Your task to perform on an android device: change keyboard looks Image 0: 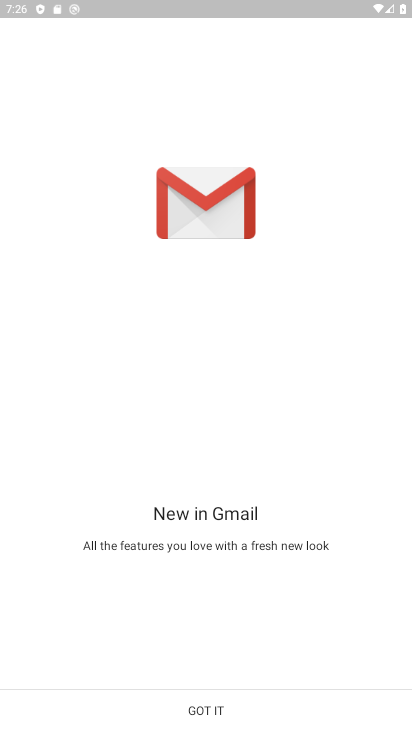
Step 0: press home button
Your task to perform on an android device: change keyboard looks Image 1: 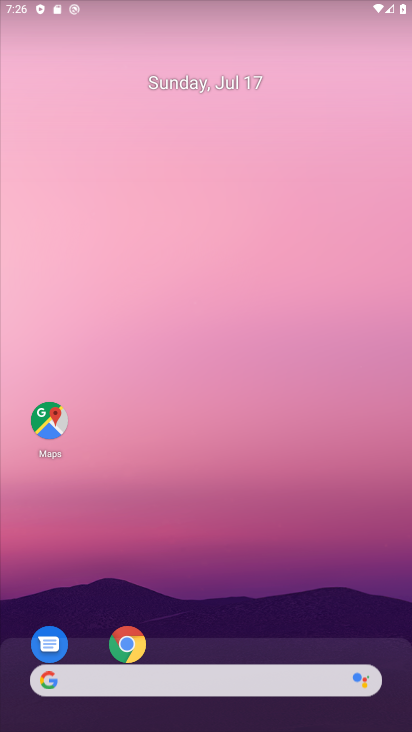
Step 1: drag from (280, 571) to (302, 41)
Your task to perform on an android device: change keyboard looks Image 2: 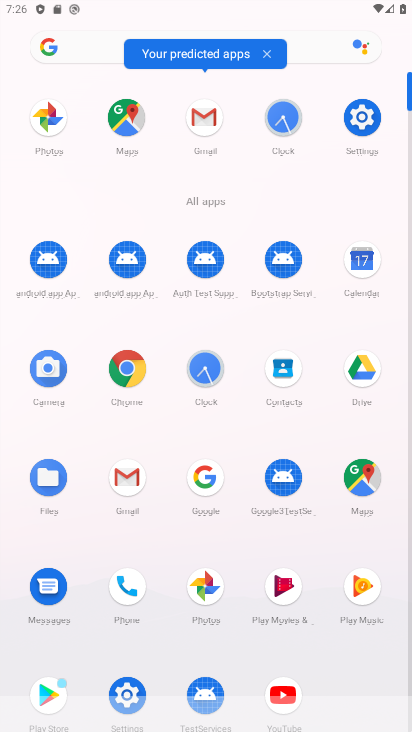
Step 2: click (363, 125)
Your task to perform on an android device: change keyboard looks Image 3: 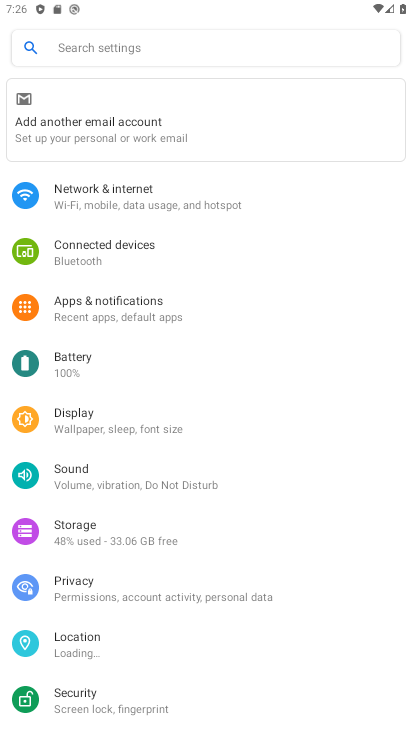
Step 3: drag from (224, 537) to (275, 148)
Your task to perform on an android device: change keyboard looks Image 4: 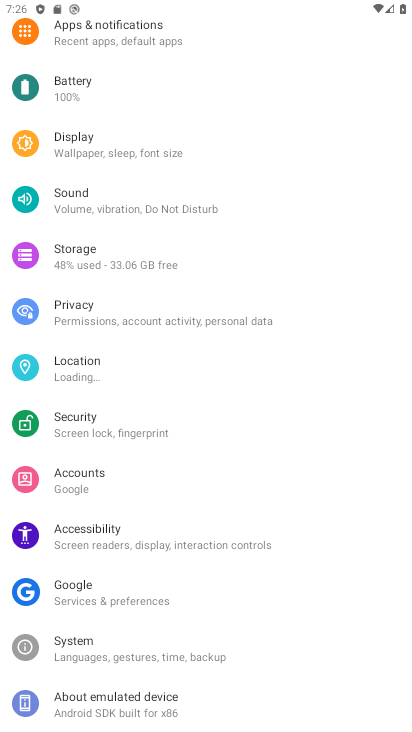
Step 4: drag from (184, 585) to (211, 389)
Your task to perform on an android device: change keyboard looks Image 5: 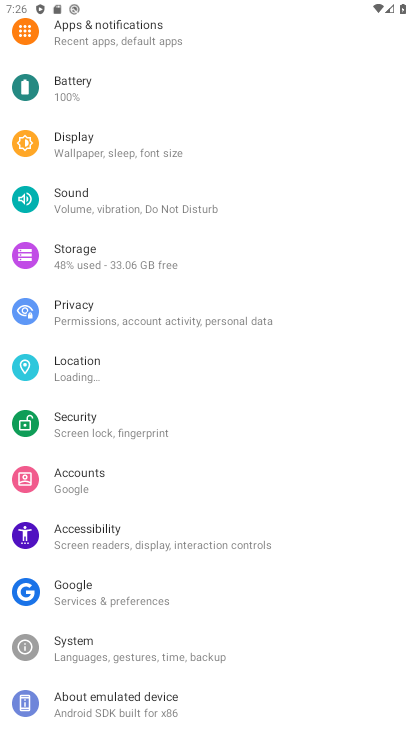
Step 5: click (145, 659)
Your task to perform on an android device: change keyboard looks Image 6: 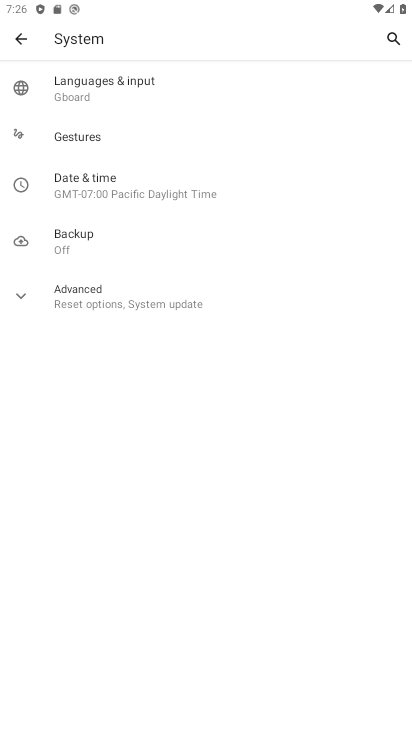
Step 6: click (147, 86)
Your task to perform on an android device: change keyboard looks Image 7: 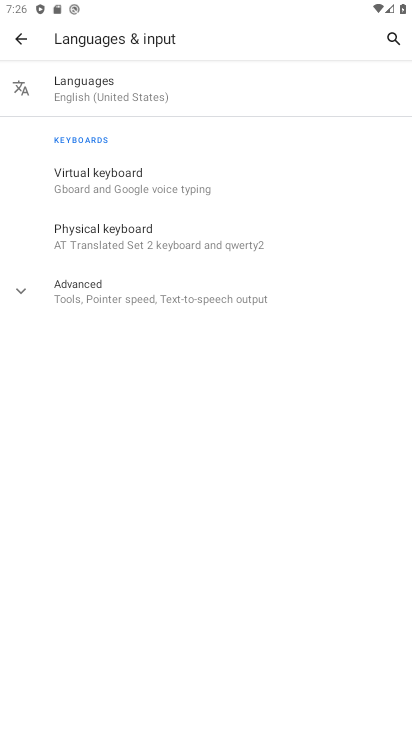
Step 7: click (173, 183)
Your task to perform on an android device: change keyboard looks Image 8: 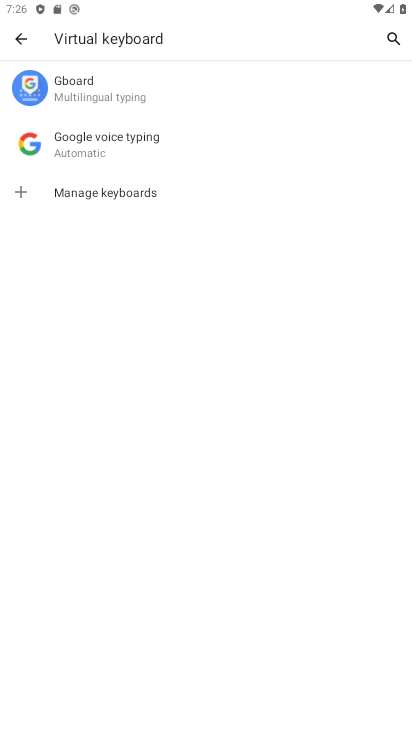
Step 8: click (172, 89)
Your task to perform on an android device: change keyboard looks Image 9: 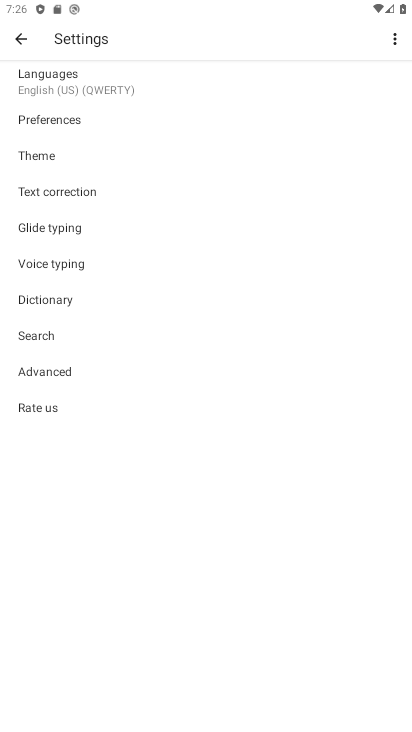
Step 9: click (80, 152)
Your task to perform on an android device: change keyboard looks Image 10: 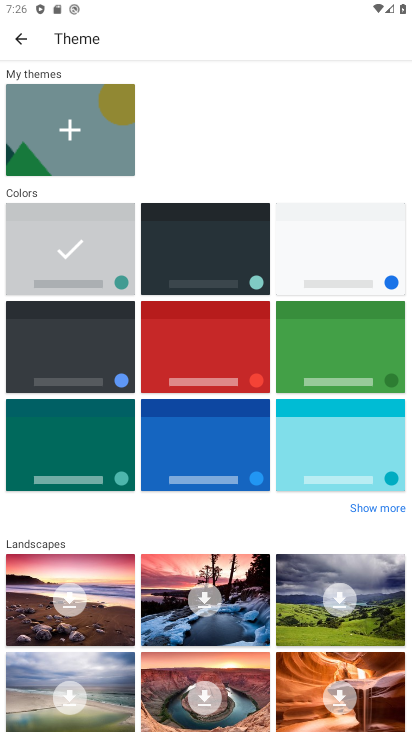
Step 10: click (205, 268)
Your task to perform on an android device: change keyboard looks Image 11: 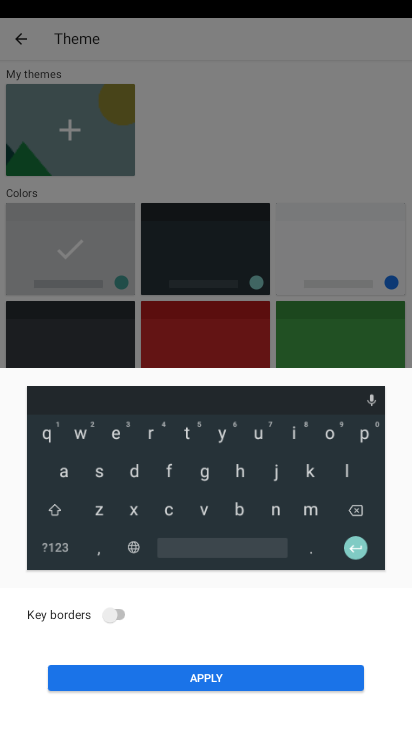
Step 11: task complete